Your task to perform on an android device: check google app version Image 0: 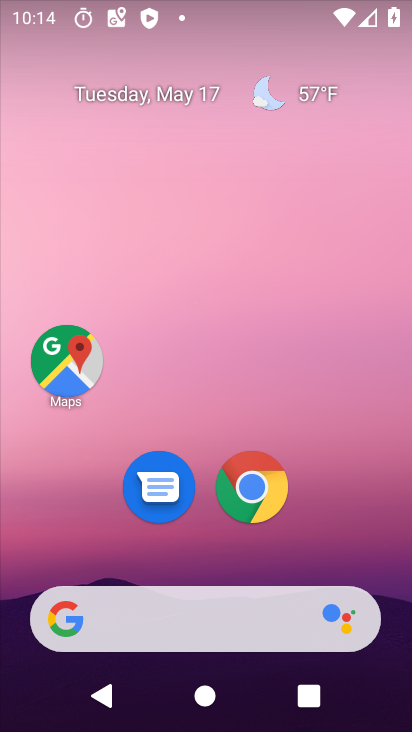
Step 0: drag from (237, 722) to (256, 23)
Your task to perform on an android device: check google app version Image 1: 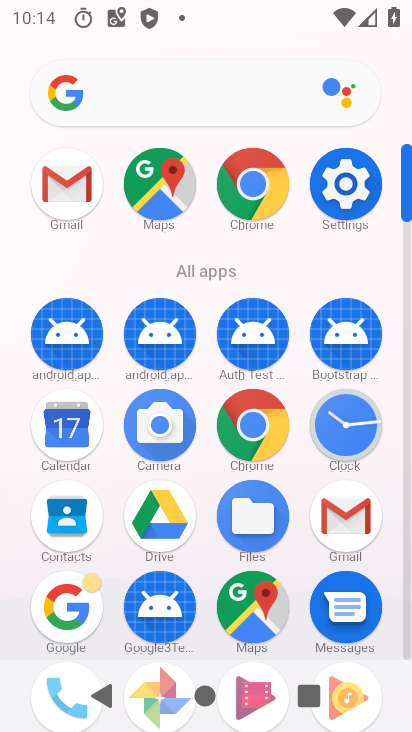
Step 1: click (62, 607)
Your task to perform on an android device: check google app version Image 2: 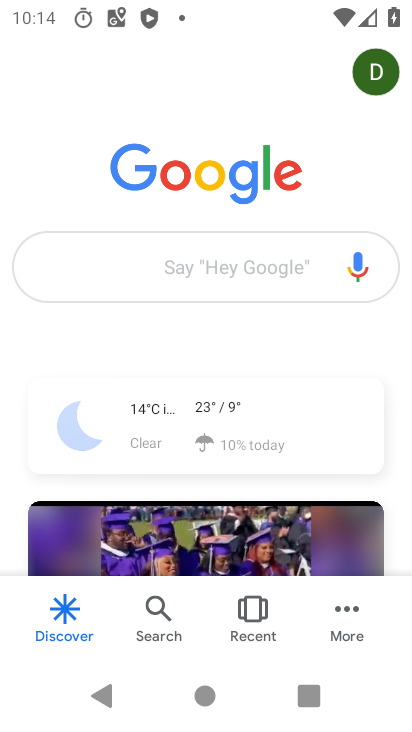
Step 2: click (355, 603)
Your task to perform on an android device: check google app version Image 3: 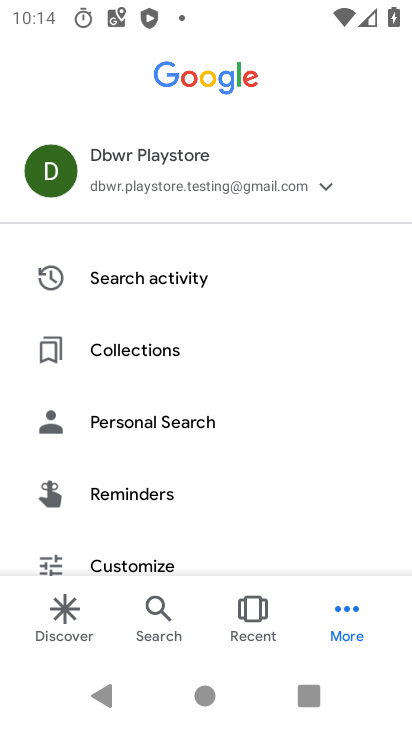
Step 3: drag from (212, 528) to (212, 176)
Your task to perform on an android device: check google app version Image 4: 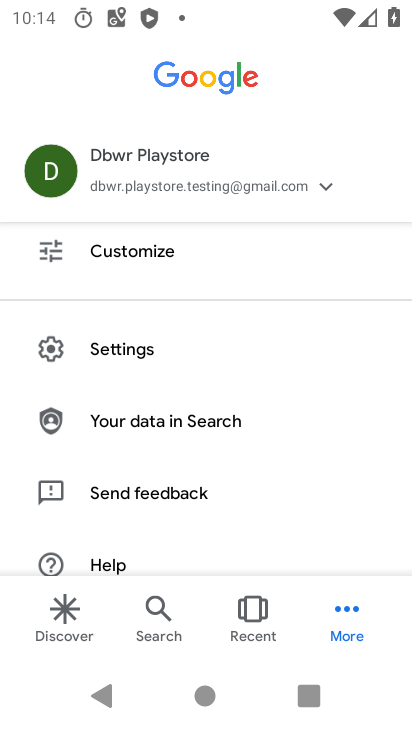
Step 4: click (121, 348)
Your task to perform on an android device: check google app version Image 5: 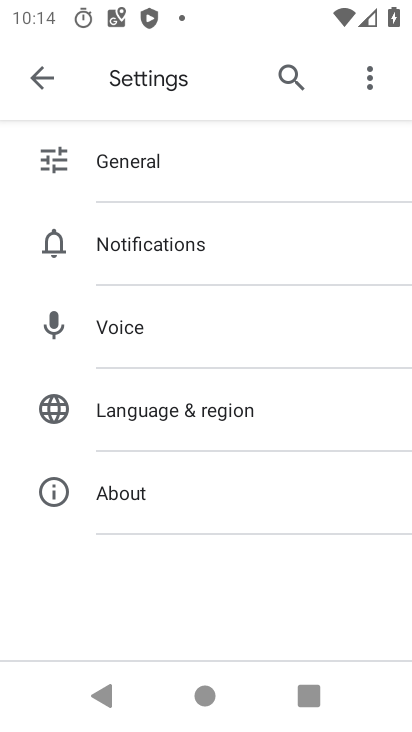
Step 5: click (120, 489)
Your task to perform on an android device: check google app version Image 6: 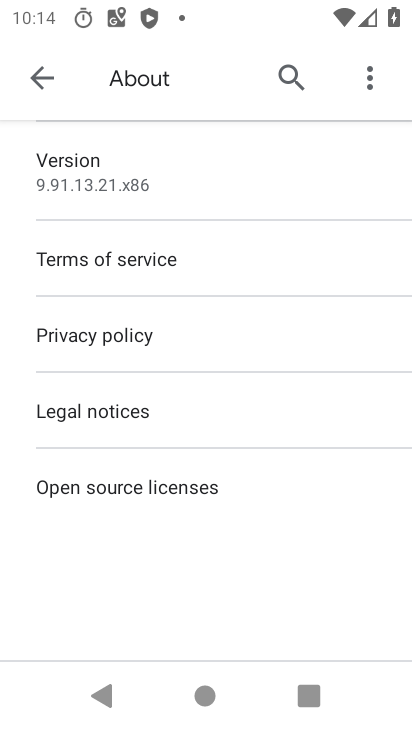
Step 6: task complete